Your task to perform on an android device: empty trash in google photos Image 0: 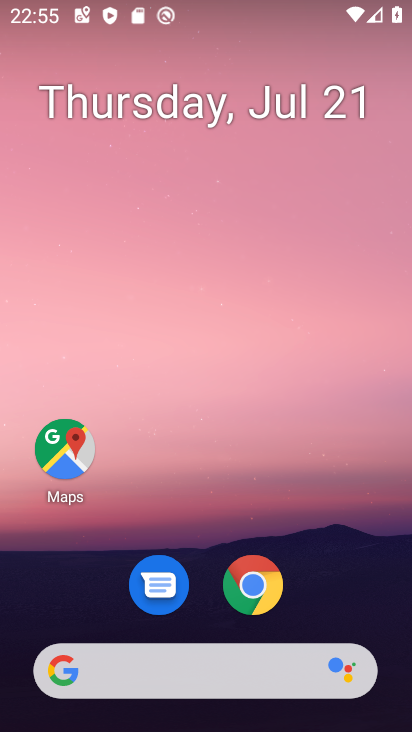
Step 0: press home button
Your task to perform on an android device: empty trash in google photos Image 1: 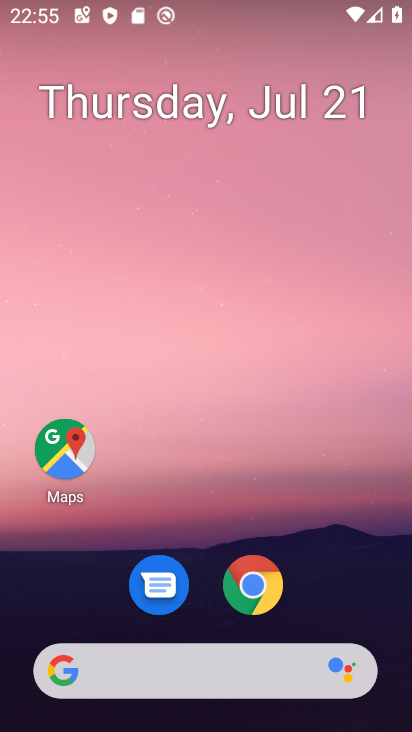
Step 1: drag from (228, 671) to (213, 142)
Your task to perform on an android device: empty trash in google photos Image 2: 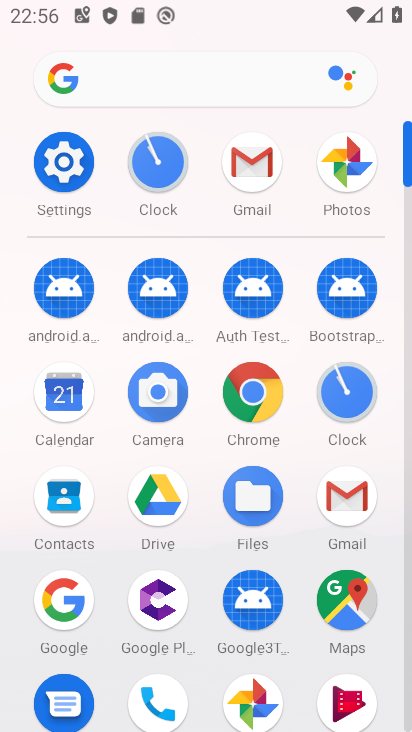
Step 2: click (339, 163)
Your task to perform on an android device: empty trash in google photos Image 3: 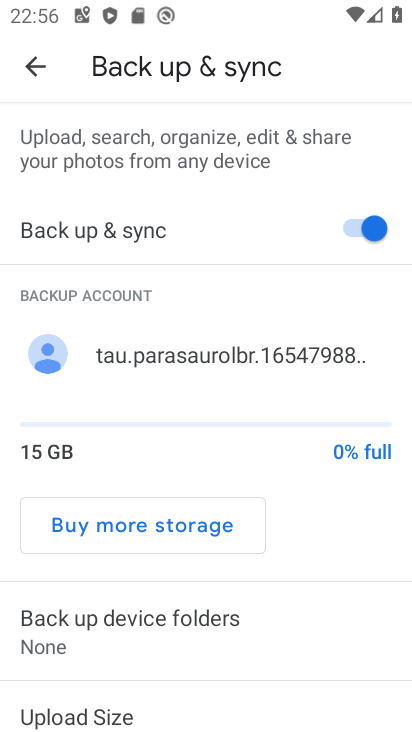
Step 3: click (38, 69)
Your task to perform on an android device: empty trash in google photos Image 4: 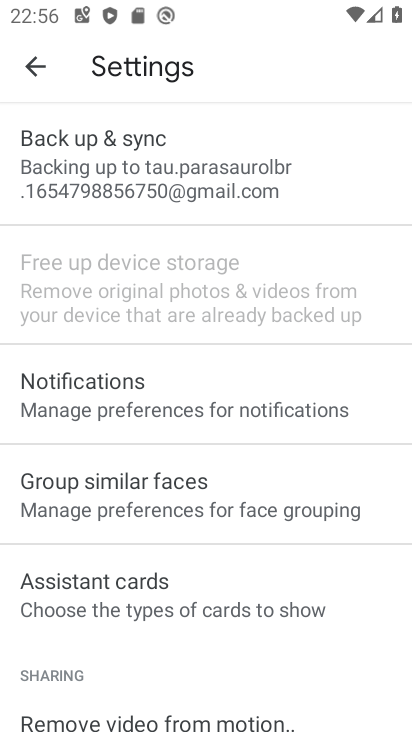
Step 4: click (38, 69)
Your task to perform on an android device: empty trash in google photos Image 5: 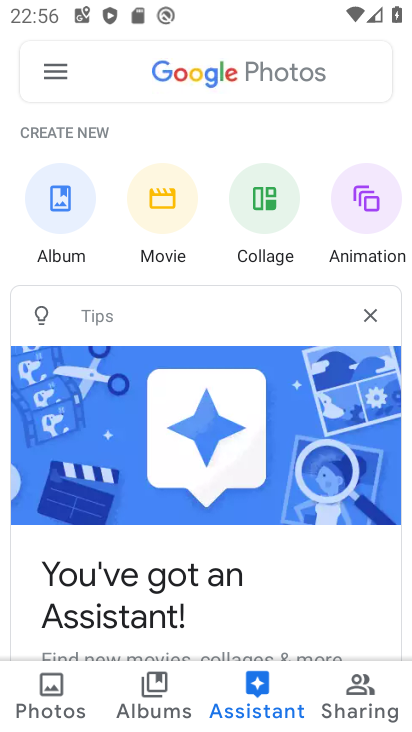
Step 5: click (58, 61)
Your task to perform on an android device: empty trash in google photos Image 6: 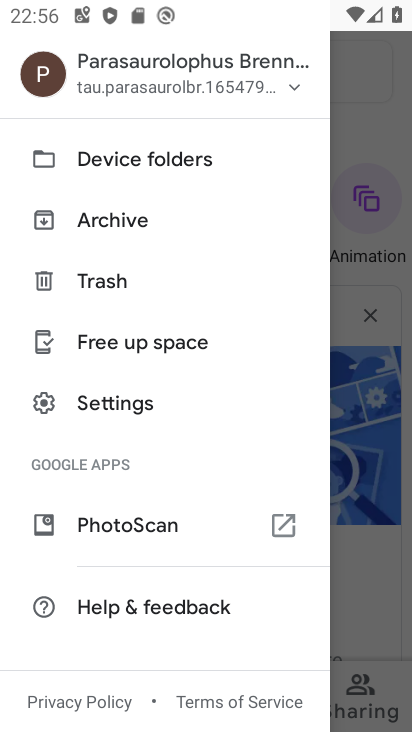
Step 6: click (97, 270)
Your task to perform on an android device: empty trash in google photos Image 7: 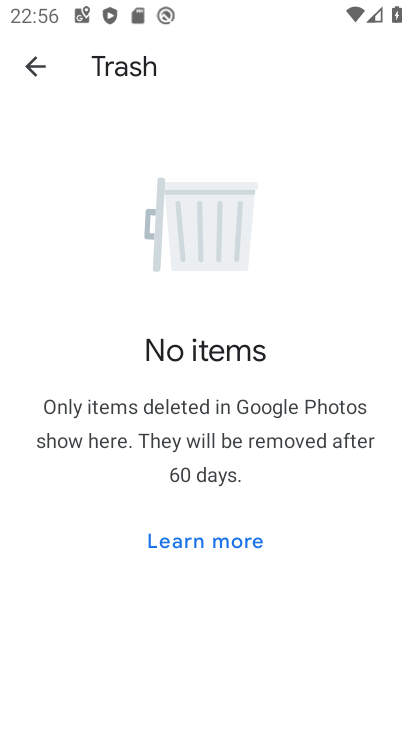
Step 7: task complete